Your task to perform on an android device: Open Youtube and go to "Your channel" Image 0: 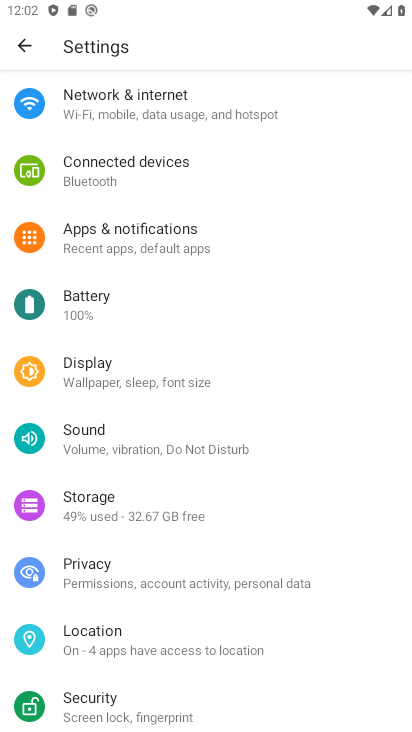
Step 0: press home button
Your task to perform on an android device: Open Youtube and go to "Your channel" Image 1: 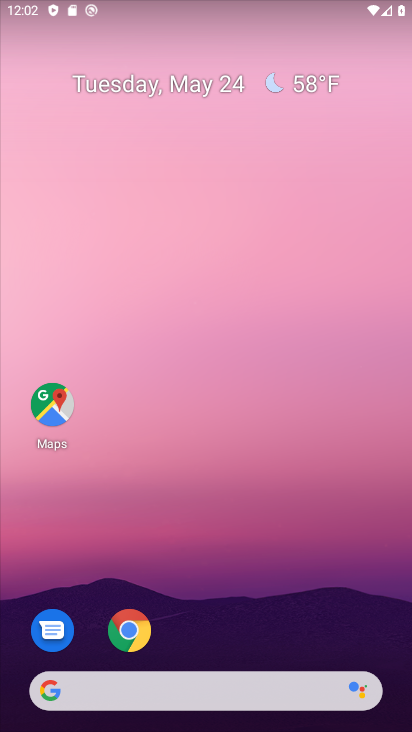
Step 1: drag from (240, 600) to (177, 130)
Your task to perform on an android device: Open Youtube and go to "Your channel" Image 2: 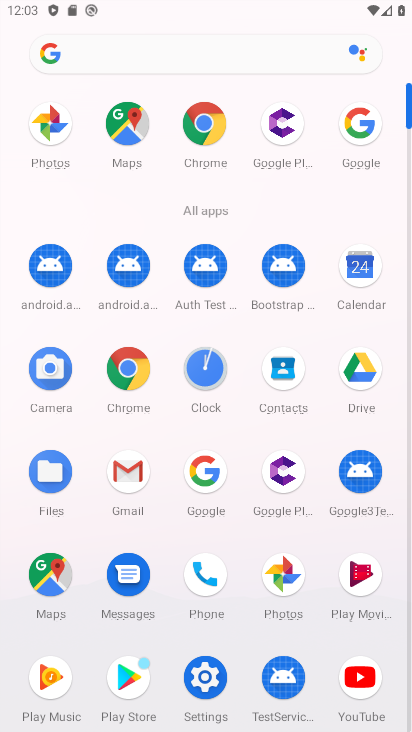
Step 2: drag from (317, 640) to (330, 364)
Your task to perform on an android device: Open Youtube and go to "Your channel" Image 3: 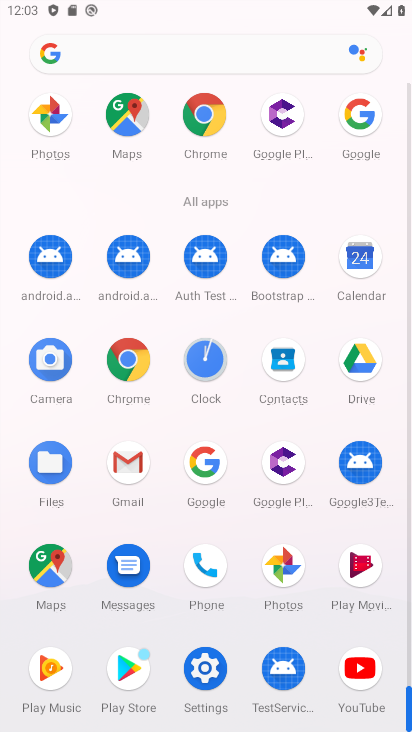
Step 3: click (361, 666)
Your task to perform on an android device: Open Youtube and go to "Your channel" Image 4: 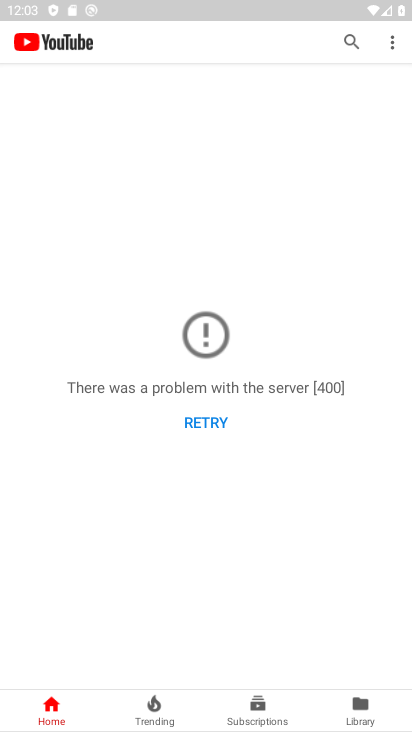
Step 4: click (212, 423)
Your task to perform on an android device: Open Youtube and go to "Your channel" Image 5: 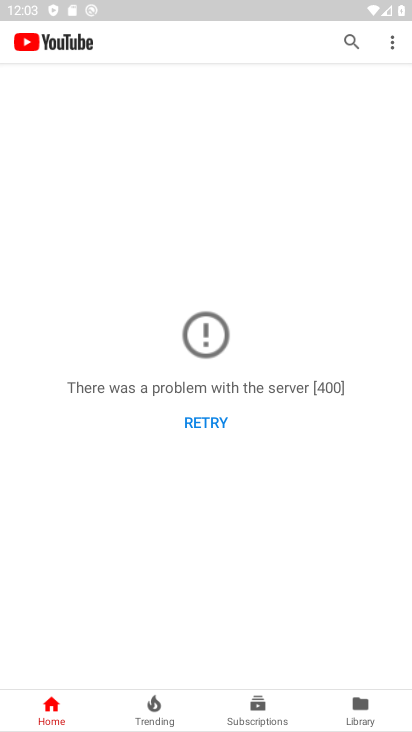
Step 5: task complete